Your task to perform on an android device: Open ESPN.com Image 0: 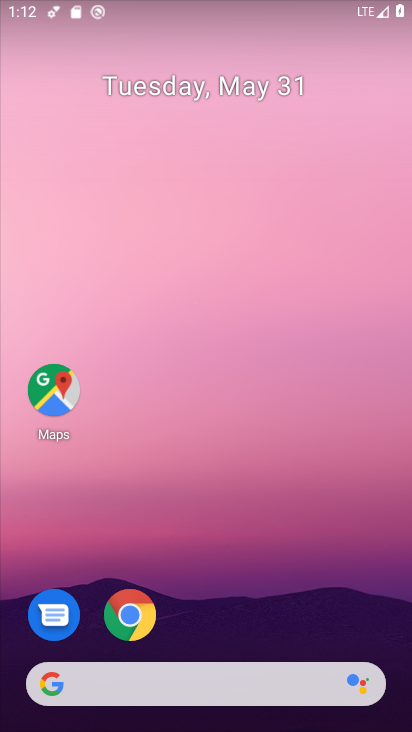
Step 0: click (115, 614)
Your task to perform on an android device: Open ESPN.com Image 1: 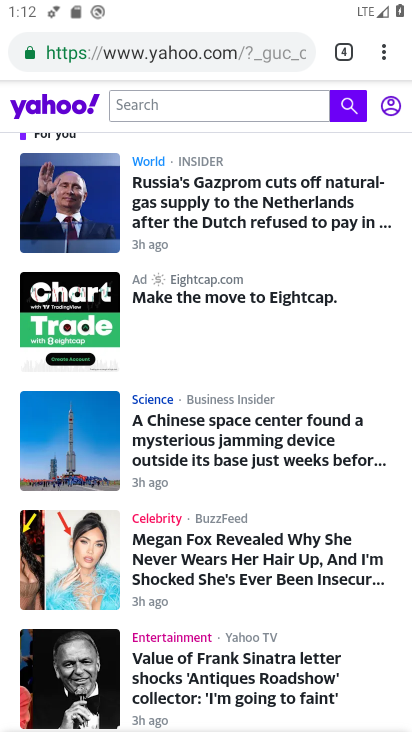
Step 1: click (177, 57)
Your task to perform on an android device: Open ESPN.com Image 2: 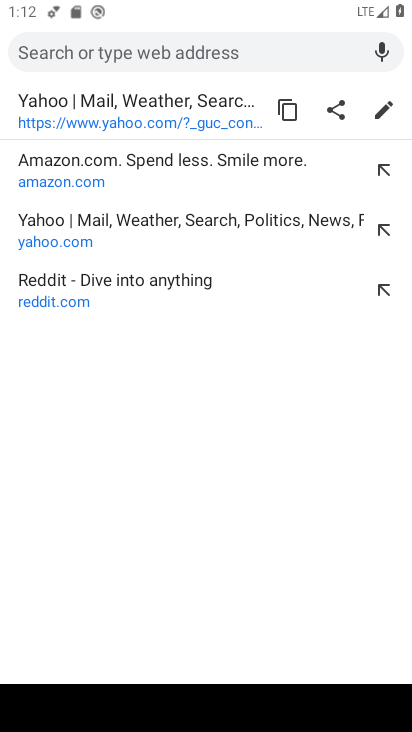
Step 2: type "ESPN.com"
Your task to perform on an android device: Open ESPN.com Image 3: 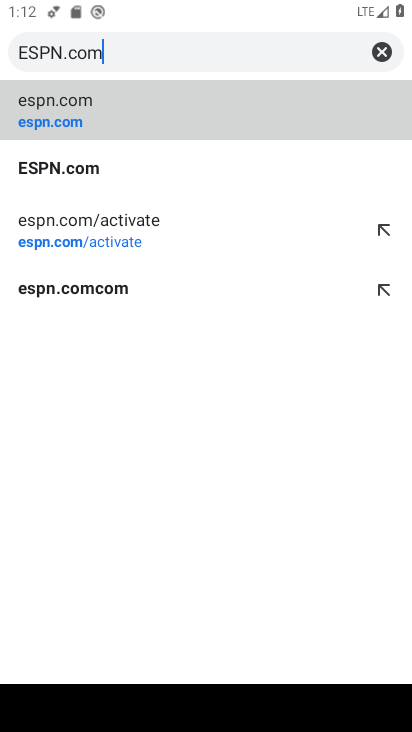
Step 3: click (78, 112)
Your task to perform on an android device: Open ESPN.com Image 4: 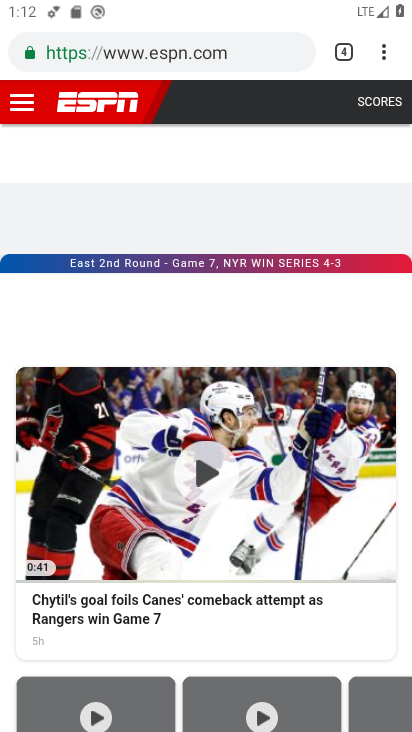
Step 4: task complete